Your task to perform on an android device: toggle data saver in the chrome app Image 0: 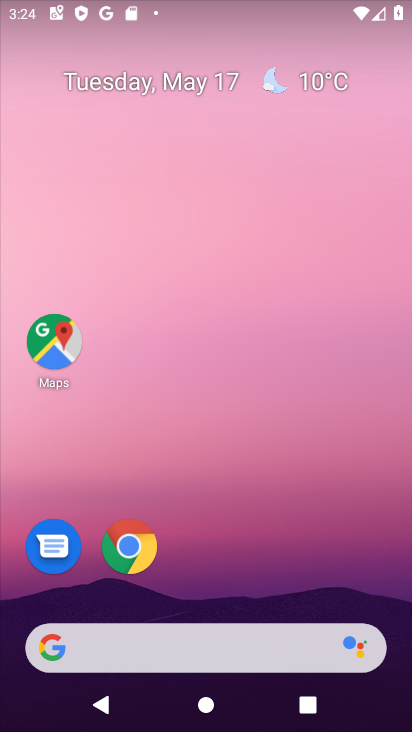
Step 0: drag from (228, 590) to (272, 133)
Your task to perform on an android device: toggle data saver in the chrome app Image 1: 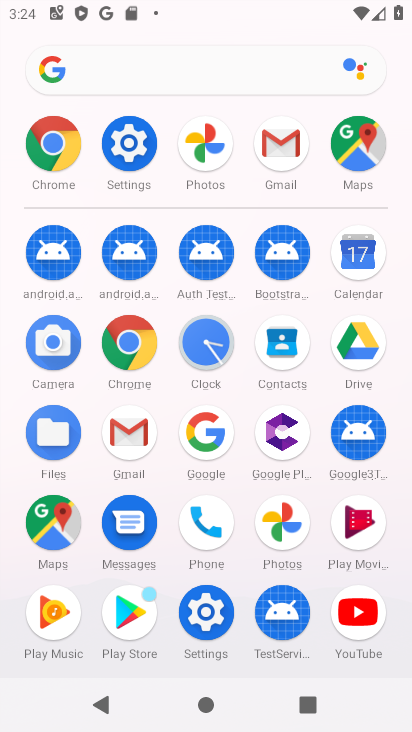
Step 1: click (137, 346)
Your task to perform on an android device: toggle data saver in the chrome app Image 2: 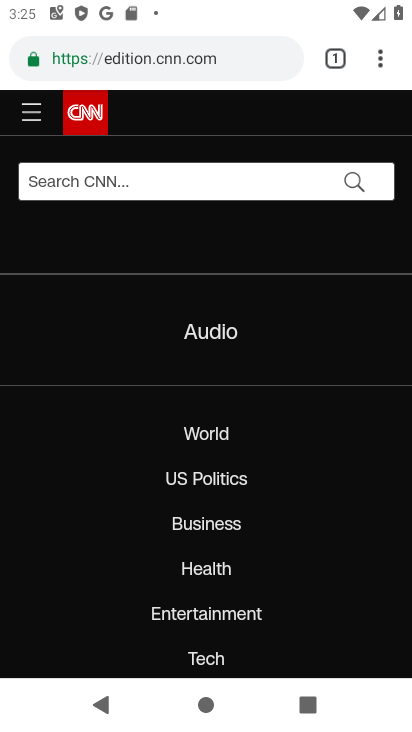
Step 2: click (379, 67)
Your task to perform on an android device: toggle data saver in the chrome app Image 3: 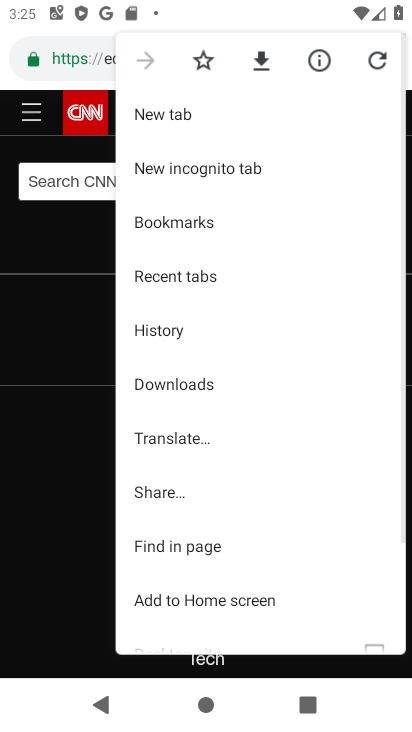
Step 3: drag from (180, 569) to (232, 281)
Your task to perform on an android device: toggle data saver in the chrome app Image 4: 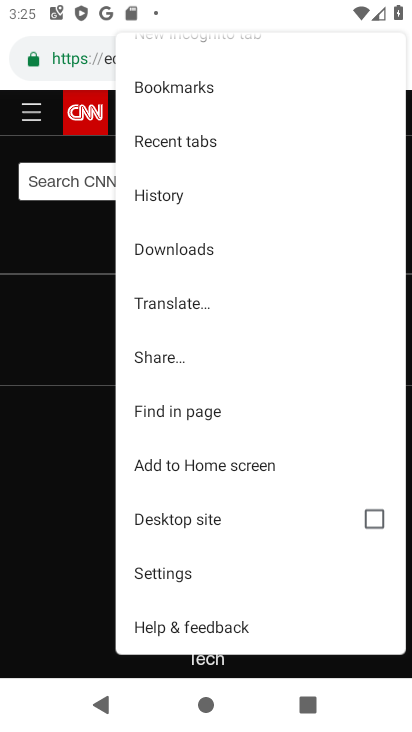
Step 4: click (179, 575)
Your task to perform on an android device: toggle data saver in the chrome app Image 5: 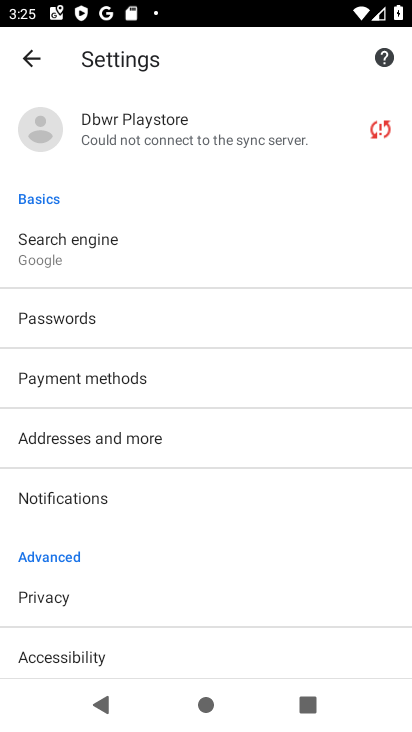
Step 5: drag from (127, 571) to (190, 210)
Your task to perform on an android device: toggle data saver in the chrome app Image 6: 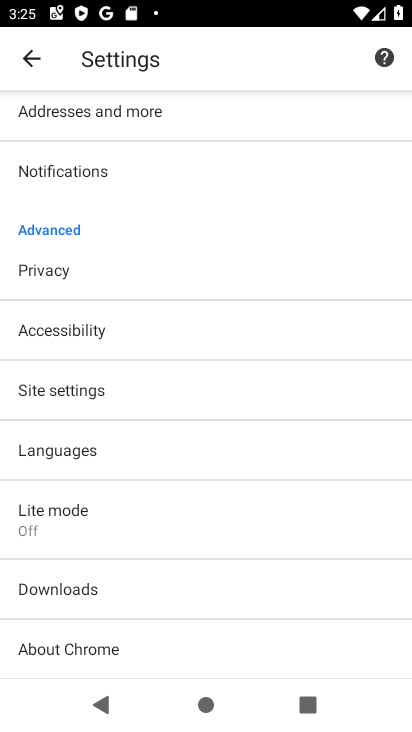
Step 6: click (96, 517)
Your task to perform on an android device: toggle data saver in the chrome app Image 7: 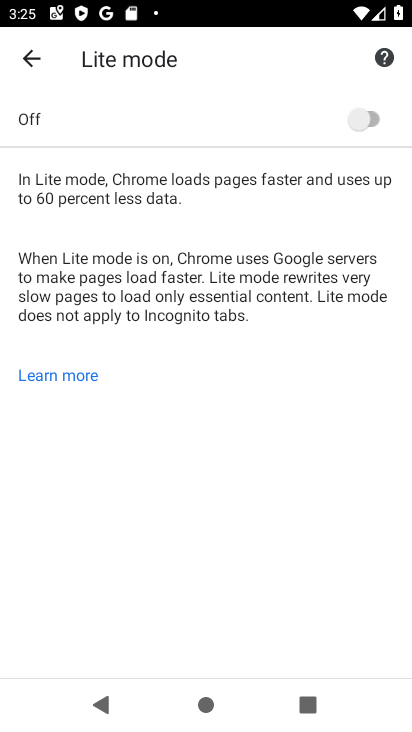
Step 7: click (354, 127)
Your task to perform on an android device: toggle data saver in the chrome app Image 8: 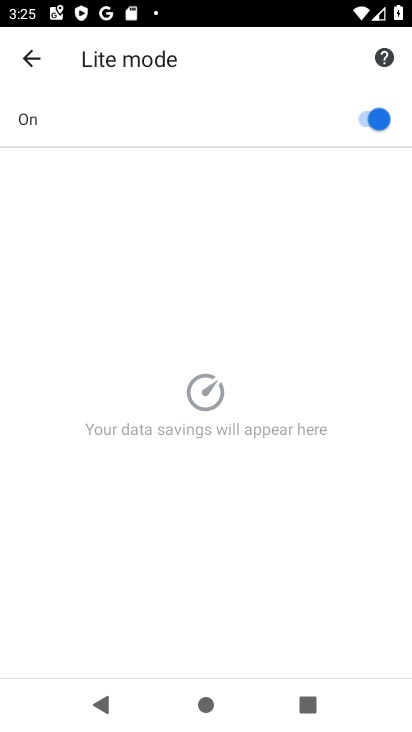
Step 8: task complete